Your task to perform on an android device: Search for Mexican restaurants on Maps Image 0: 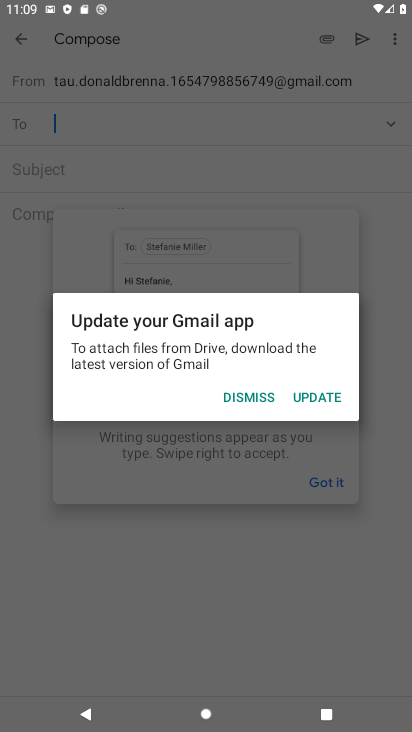
Step 0: press back button
Your task to perform on an android device: Search for Mexican restaurants on Maps Image 1: 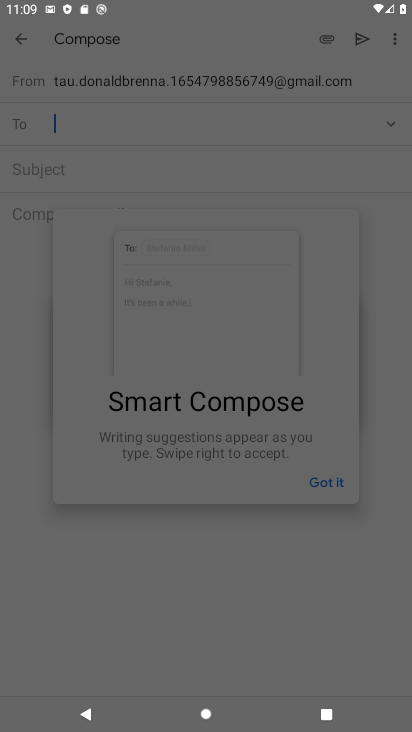
Step 1: press back button
Your task to perform on an android device: Search for Mexican restaurants on Maps Image 2: 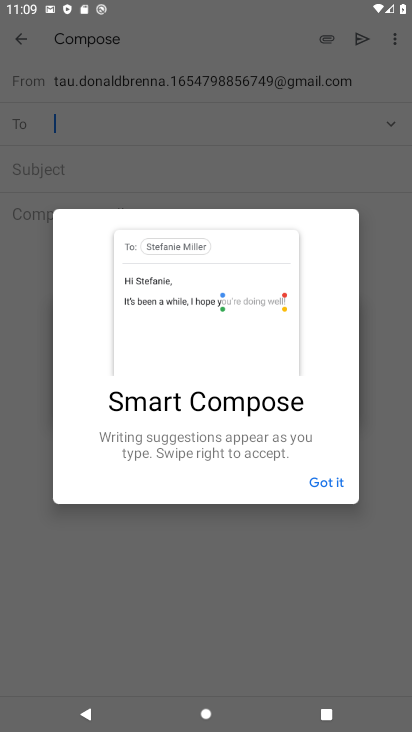
Step 2: press back button
Your task to perform on an android device: Search for Mexican restaurants on Maps Image 3: 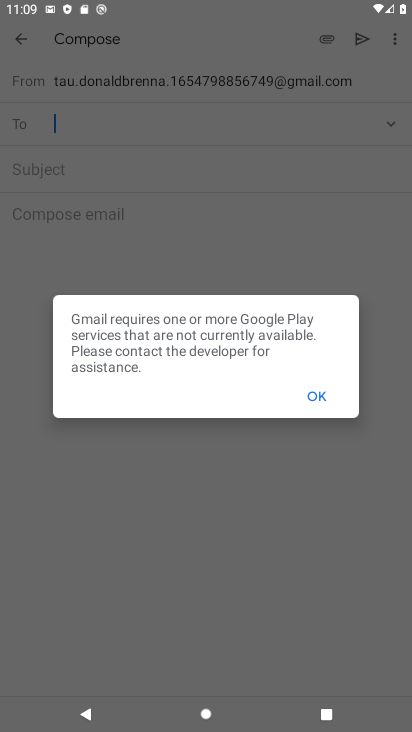
Step 3: press back button
Your task to perform on an android device: Search for Mexican restaurants on Maps Image 4: 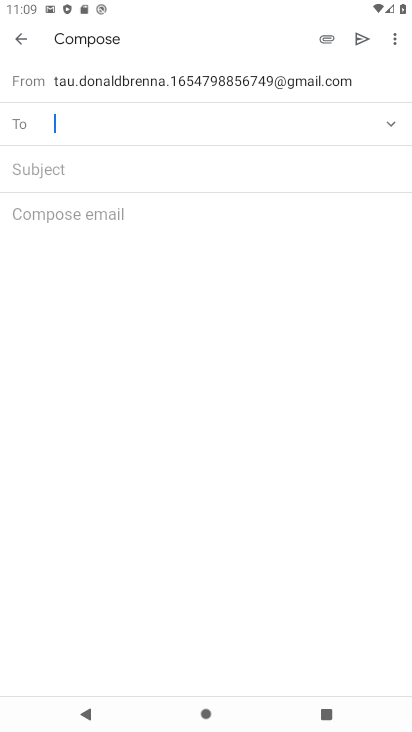
Step 4: press back button
Your task to perform on an android device: Search for Mexican restaurants on Maps Image 5: 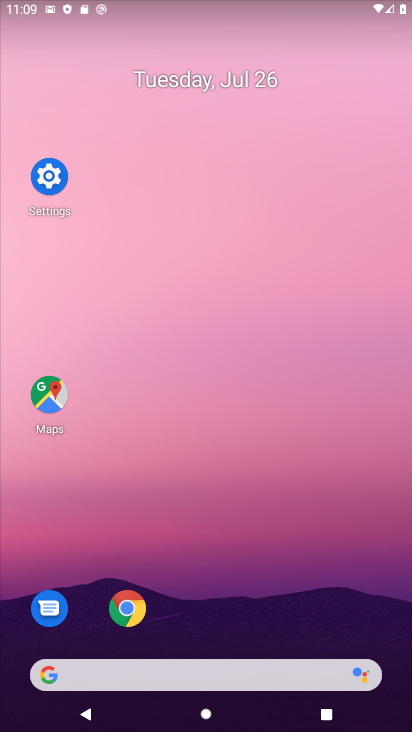
Step 5: click (50, 398)
Your task to perform on an android device: Search for Mexican restaurants on Maps Image 6: 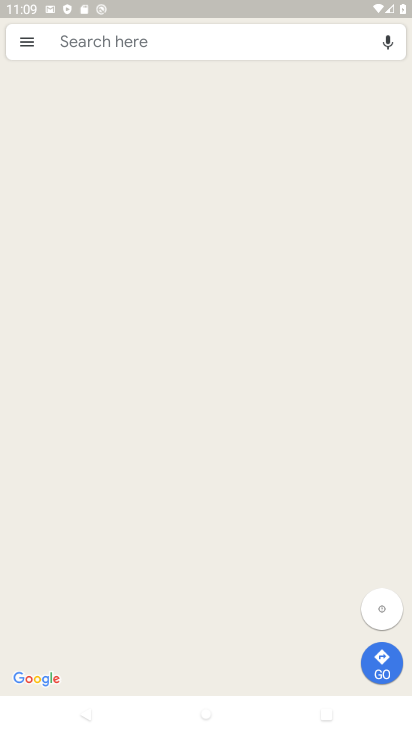
Step 6: click (216, 49)
Your task to perform on an android device: Search for Mexican restaurants on Maps Image 7: 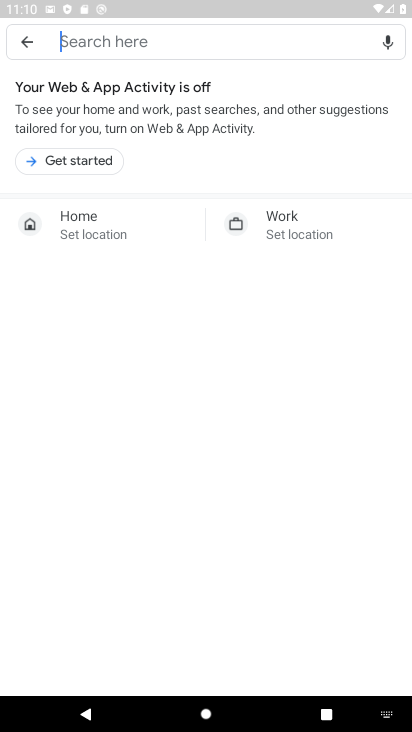
Step 7: click (64, 160)
Your task to perform on an android device: Search for Mexican restaurants on Maps Image 8: 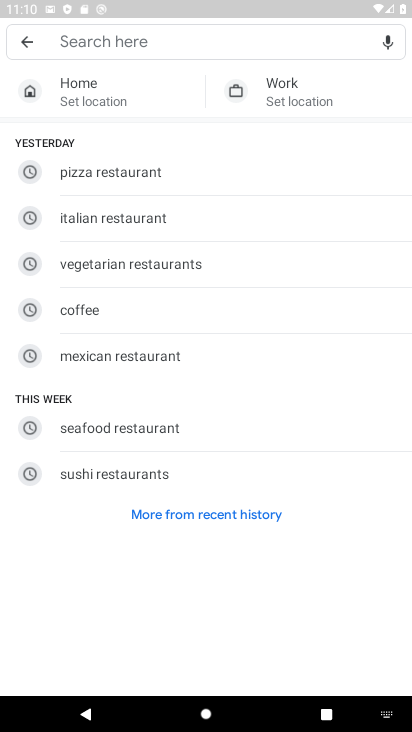
Step 8: click (142, 364)
Your task to perform on an android device: Search for Mexican restaurants on Maps Image 9: 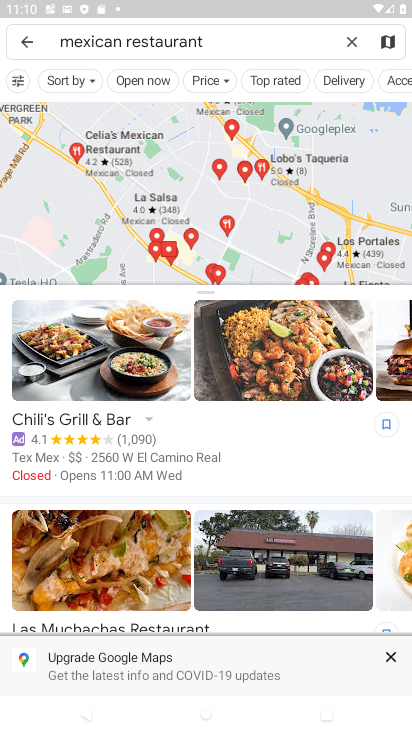
Step 9: task complete